Your task to perform on an android device: toggle improve location accuracy Image 0: 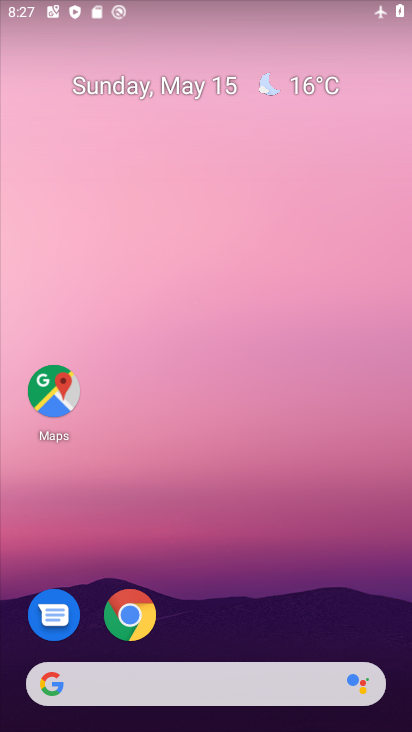
Step 0: drag from (327, 637) to (325, 92)
Your task to perform on an android device: toggle improve location accuracy Image 1: 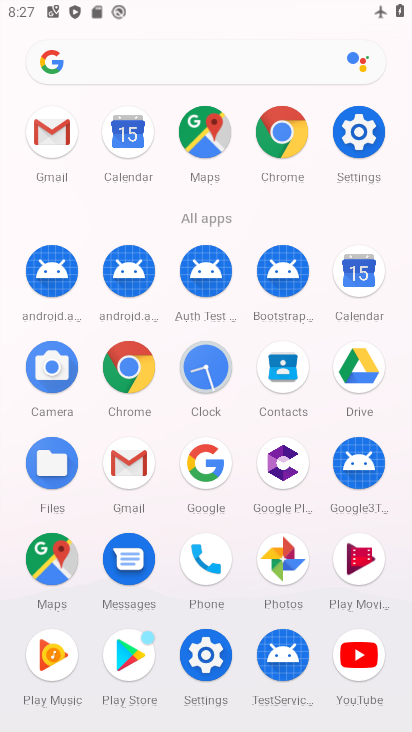
Step 1: click (365, 145)
Your task to perform on an android device: toggle improve location accuracy Image 2: 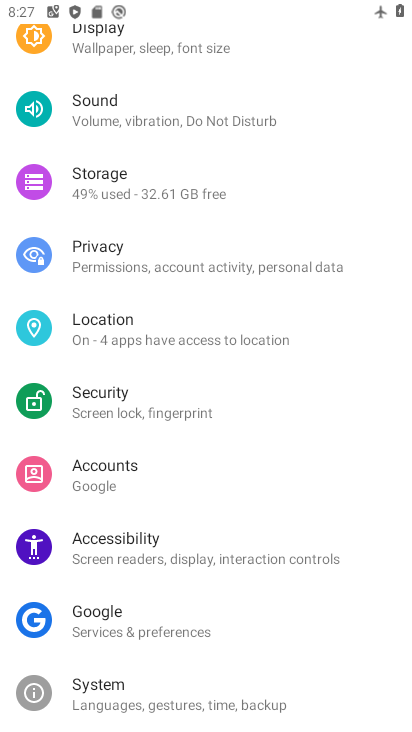
Step 2: click (192, 320)
Your task to perform on an android device: toggle improve location accuracy Image 3: 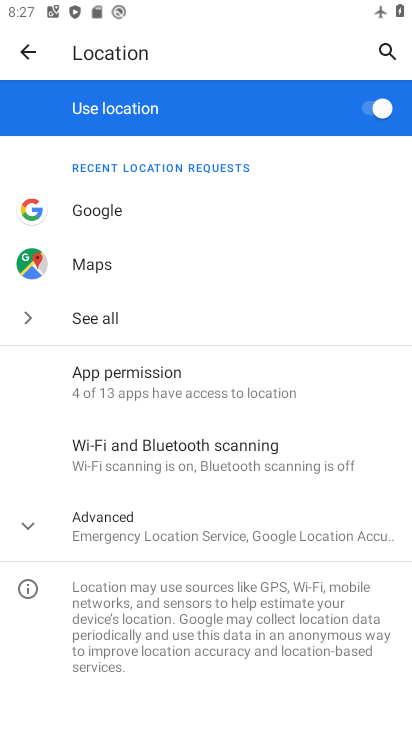
Step 3: click (179, 529)
Your task to perform on an android device: toggle improve location accuracy Image 4: 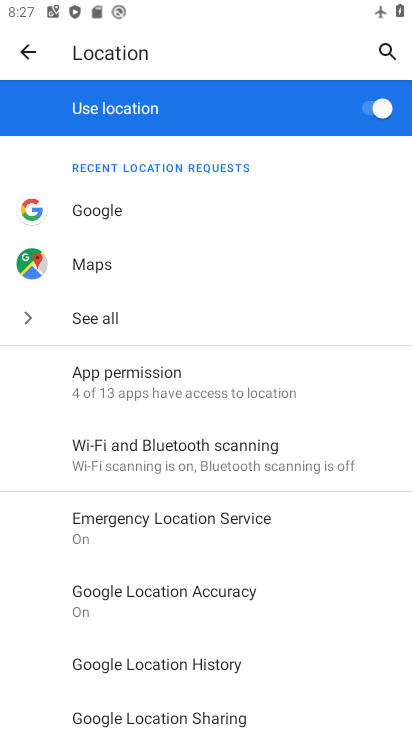
Step 4: click (213, 586)
Your task to perform on an android device: toggle improve location accuracy Image 5: 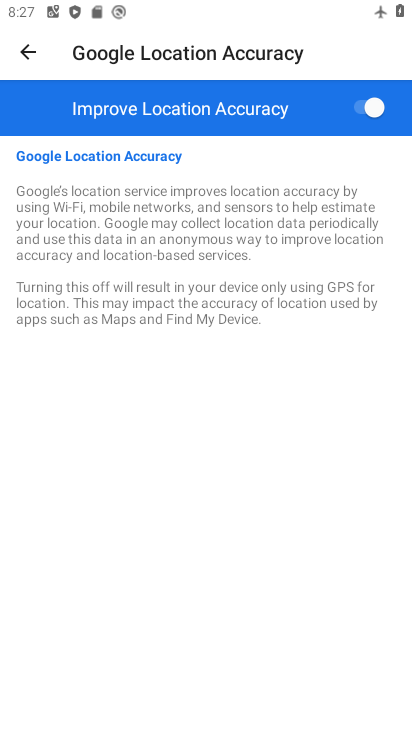
Step 5: click (362, 115)
Your task to perform on an android device: toggle improve location accuracy Image 6: 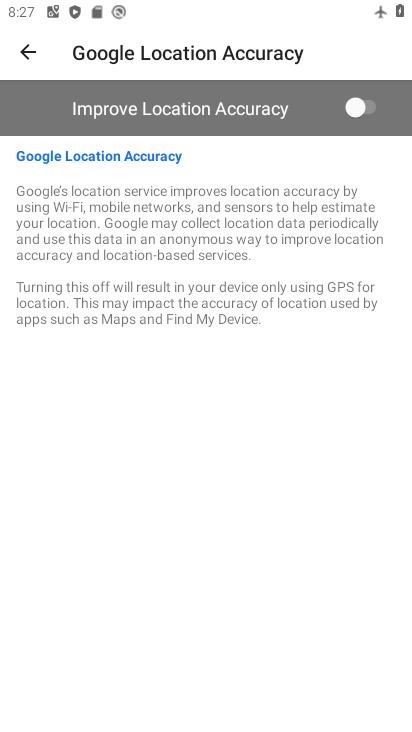
Step 6: task complete